Your task to perform on an android device: change text size in settings app Image 0: 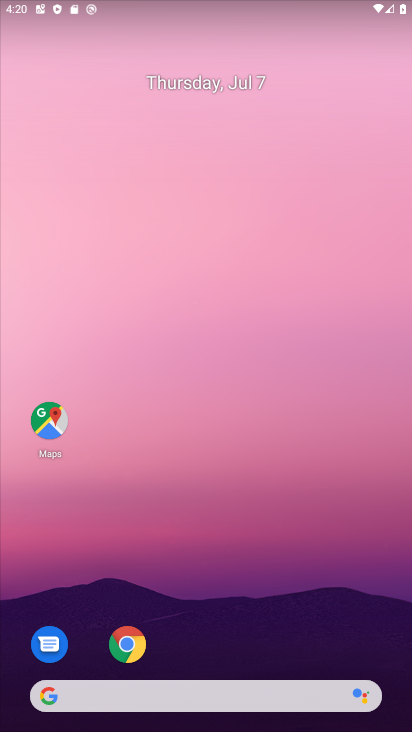
Step 0: drag from (173, 621) to (219, 0)
Your task to perform on an android device: change text size in settings app Image 1: 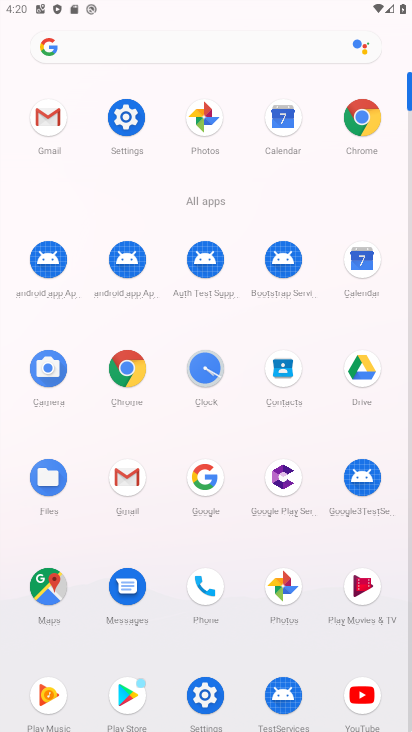
Step 1: click (205, 695)
Your task to perform on an android device: change text size in settings app Image 2: 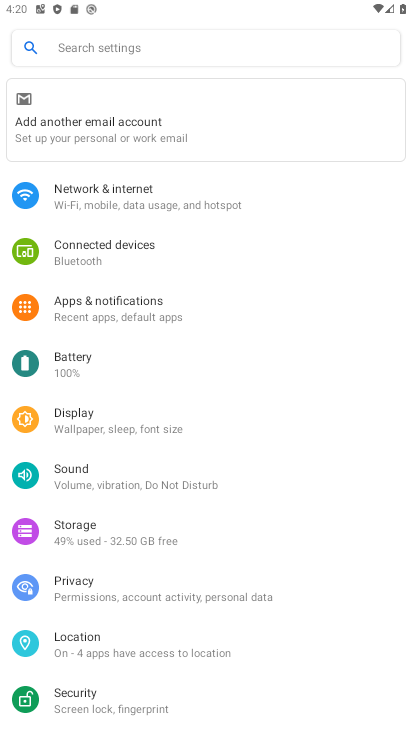
Step 2: drag from (98, 662) to (98, 487)
Your task to perform on an android device: change text size in settings app Image 3: 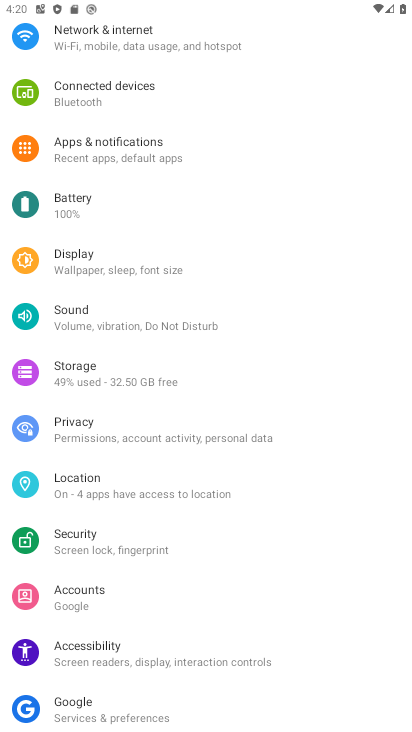
Step 3: drag from (86, 643) to (86, 480)
Your task to perform on an android device: change text size in settings app Image 4: 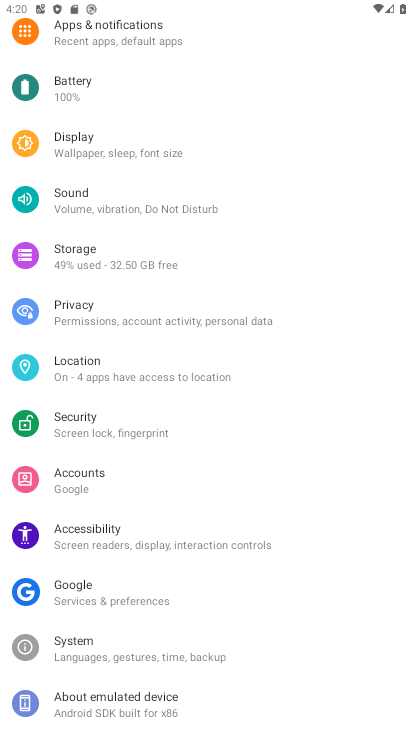
Step 4: click (106, 644)
Your task to perform on an android device: change text size in settings app Image 5: 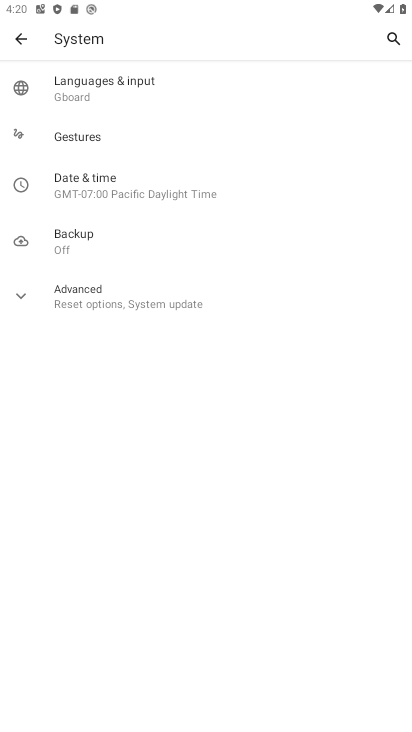
Step 5: click (21, 43)
Your task to perform on an android device: change text size in settings app Image 6: 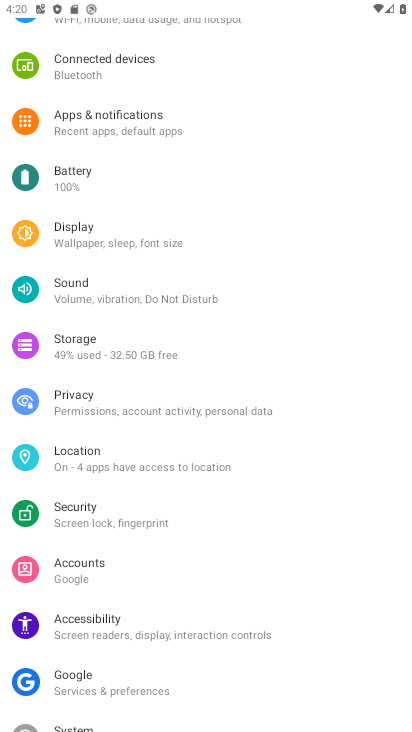
Step 6: click (107, 241)
Your task to perform on an android device: change text size in settings app Image 7: 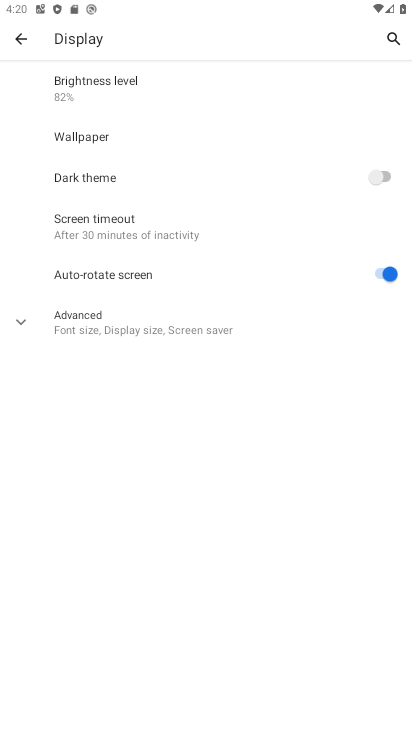
Step 7: click (127, 332)
Your task to perform on an android device: change text size in settings app Image 8: 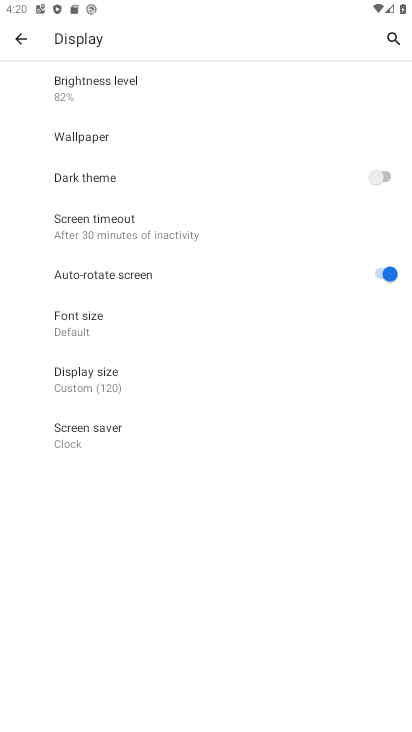
Step 8: click (90, 328)
Your task to perform on an android device: change text size in settings app Image 9: 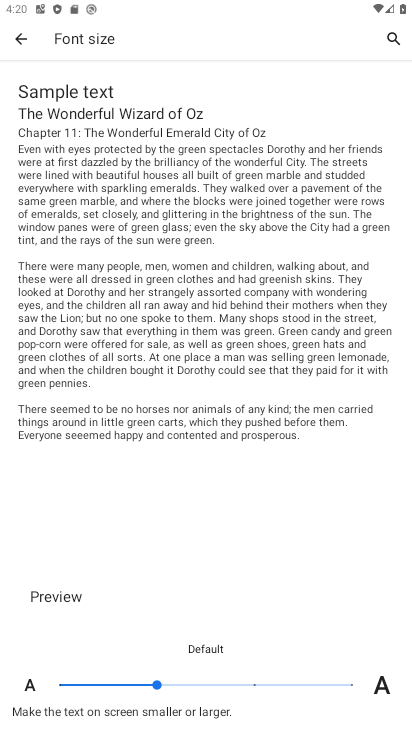
Step 9: click (251, 683)
Your task to perform on an android device: change text size in settings app Image 10: 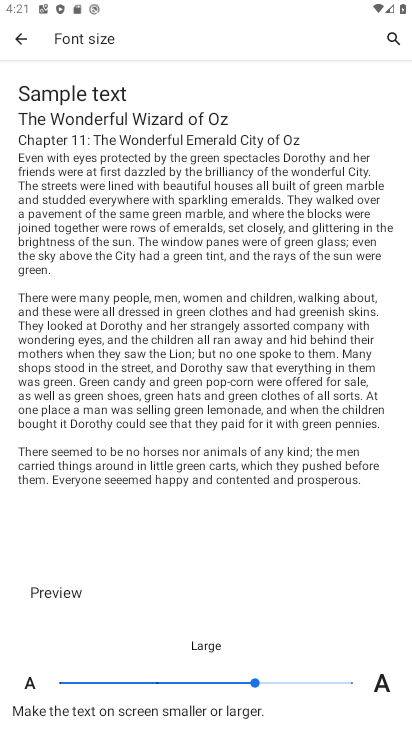
Step 10: task complete